Your task to perform on an android device: check out phone information Image 0: 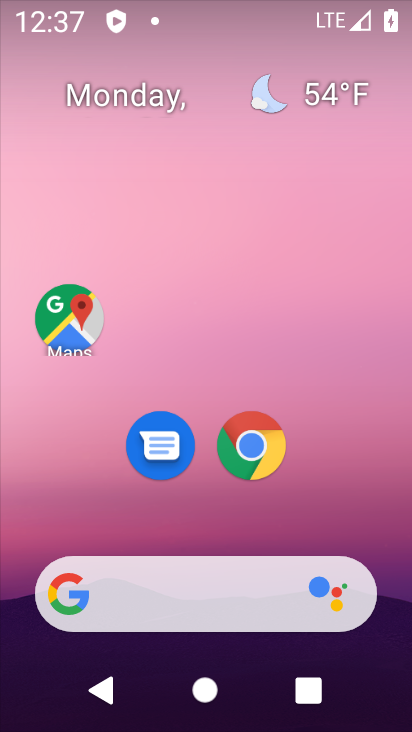
Step 0: drag from (375, 503) to (367, 109)
Your task to perform on an android device: check out phone information Image 1: 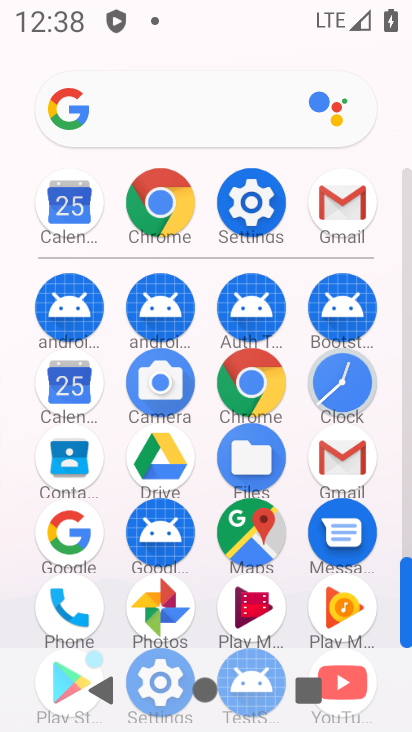
Step 1: click (252, 217)
Your task to perform on an android device: check out phone information Image 2: 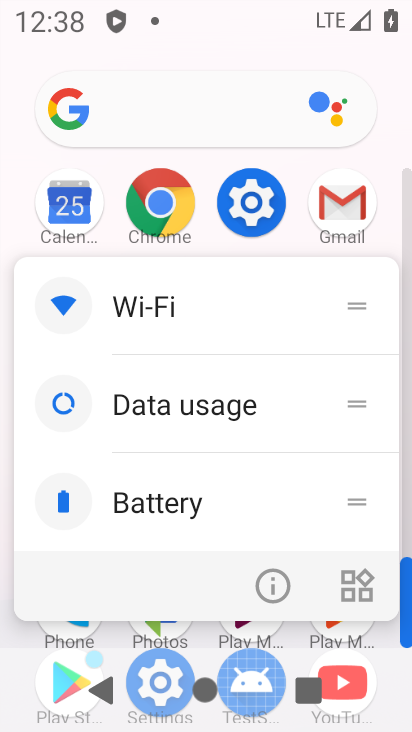
Step 2: click (250, 222)
Your task to perform on an android device: check out phone information Image 3: 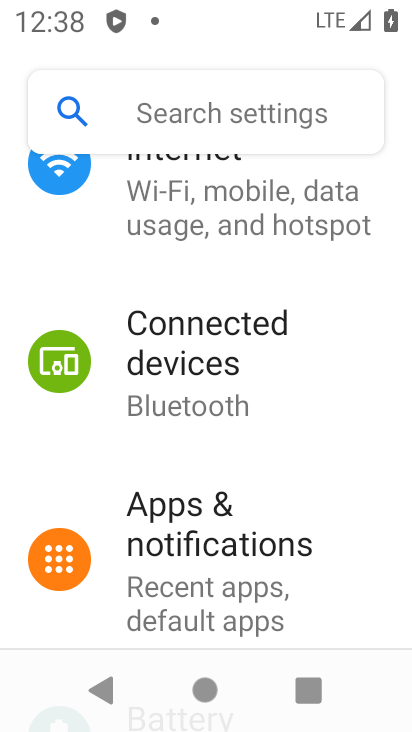
Step 3: task complete